Your task to perform on an android device: check the backup settings in the google photos Image 0: 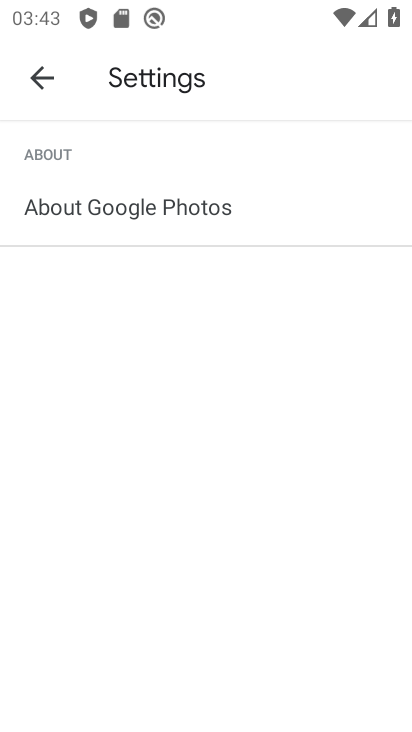
Step 0: press home button
Your task to perform on an android device: check the backup settings in the google photos Image 1: 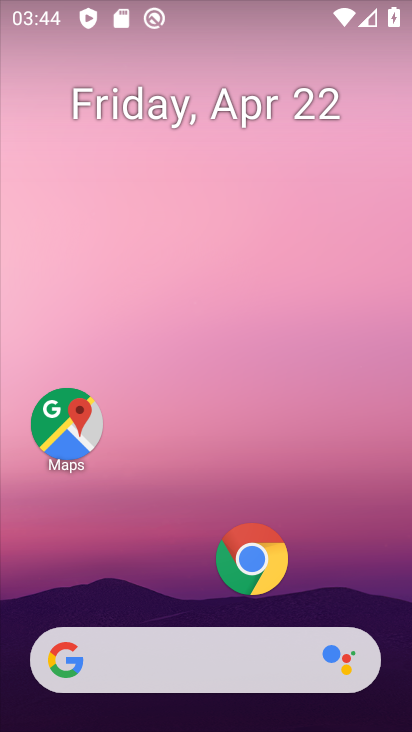
Step 1: drag from (191, 604) to (161, 127)
Your task to perform on an android device: check the backup settings in the google photos Image 2: 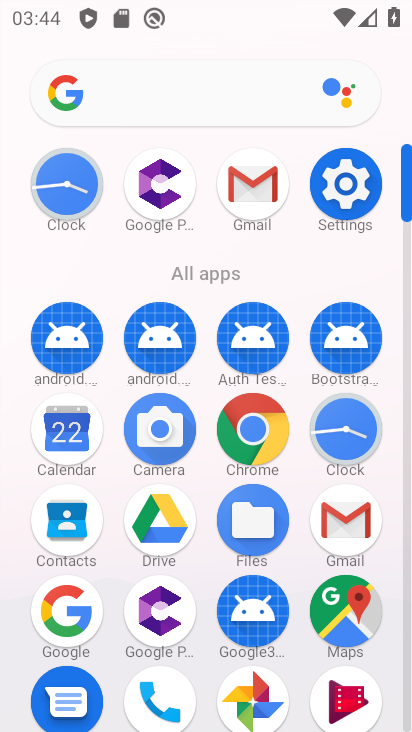
Step 2: click (266, 702)
Your task to perform on an android device: check the backup settings in the google photos Image 3: 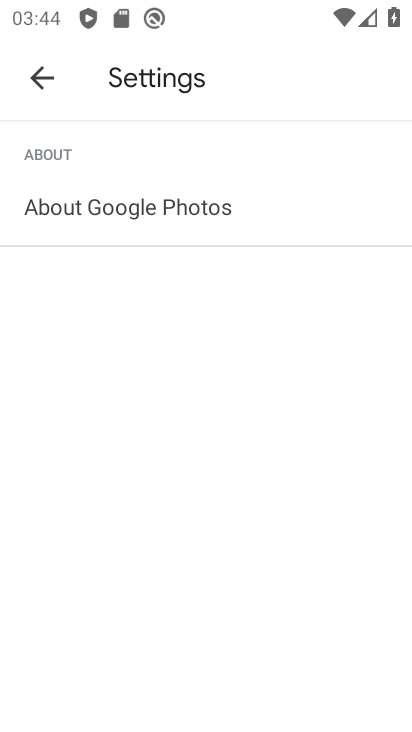
Step 3: click (38, 87)
Your task to perform on an android device: check the backup settings in the google photos Image 4: 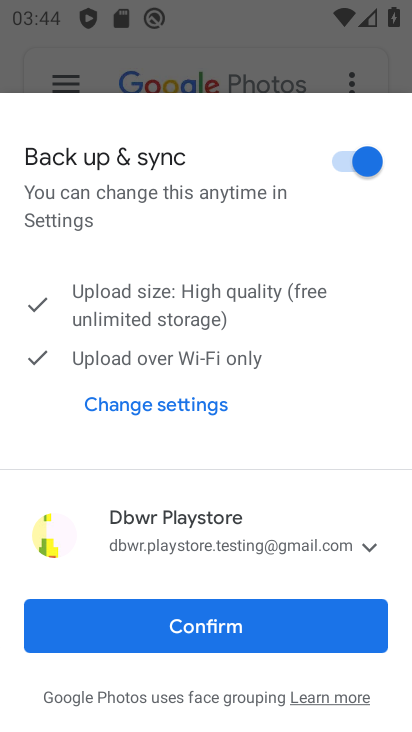
Step 4: click (221, 623)
Your task to perform on an android device: check the backup settings in the google photos Image 5: 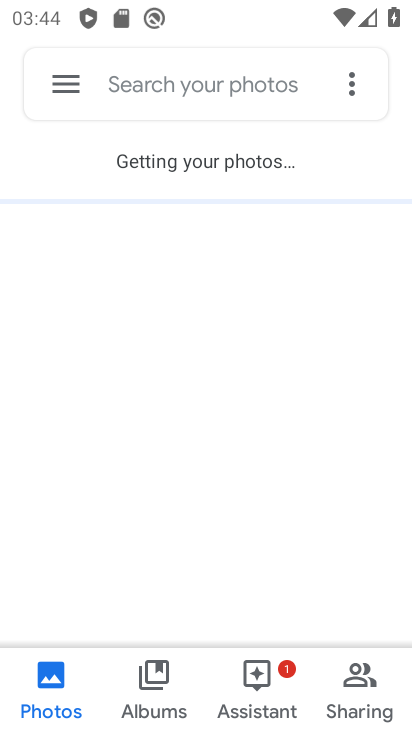
Step 5: click (49, 84)
Your task to perform on an android device: check the backup settings in the google photos Image 6: 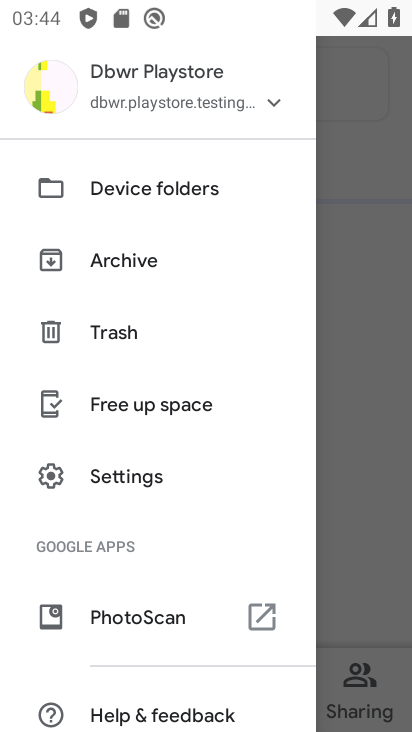
Step 6: click (132, 479)
Your task to perform on an android device: check the backup settings in the google photos Image 7: 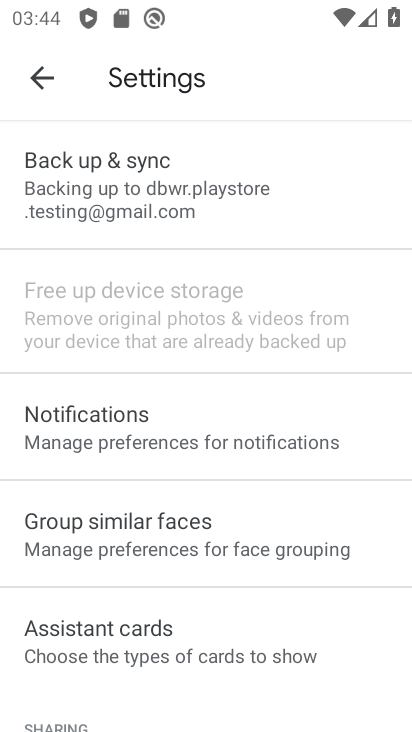
Step 7: click (117, 207)
Your task to perform on an android device: check the backup settings in the google photos Image 8: 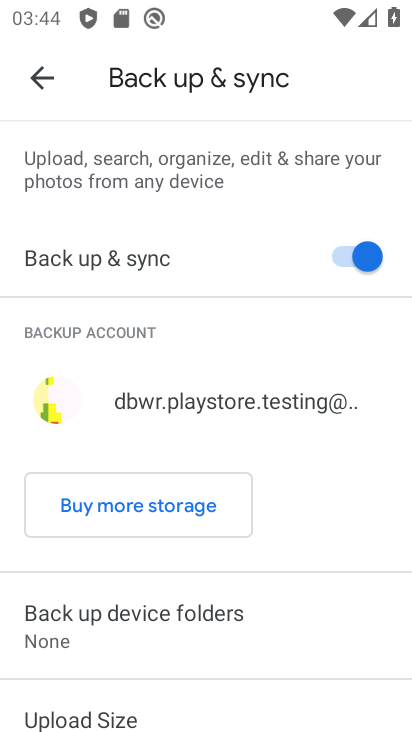
Step 8: task complete